Your task to perform on an android device: change the upload size in google photos Image 0: 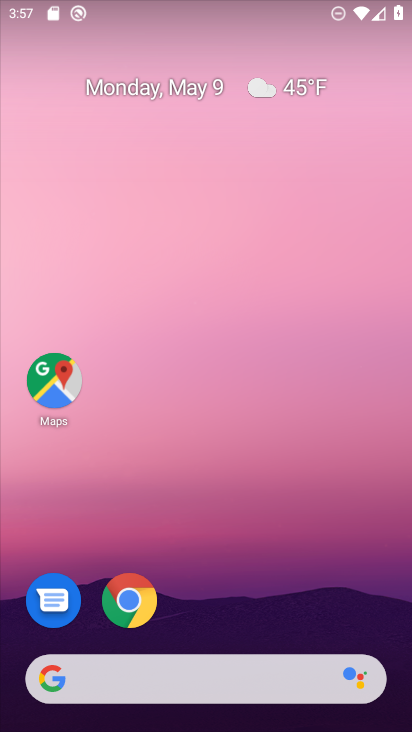
Step 0: drag from (266, 534) to (244, 22)
Your task to perform on an android device: change the upload size in google photos Image 1: 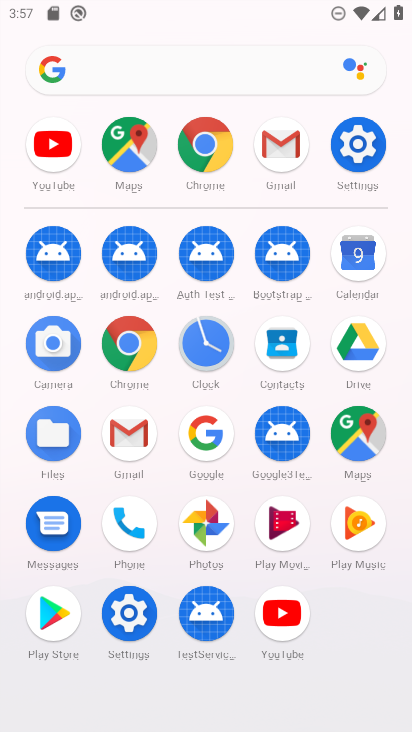
Step 1: drag from (7, 551) to (19, 230)
Your task to perform on an android device: change the upload size in google photos Image 2: 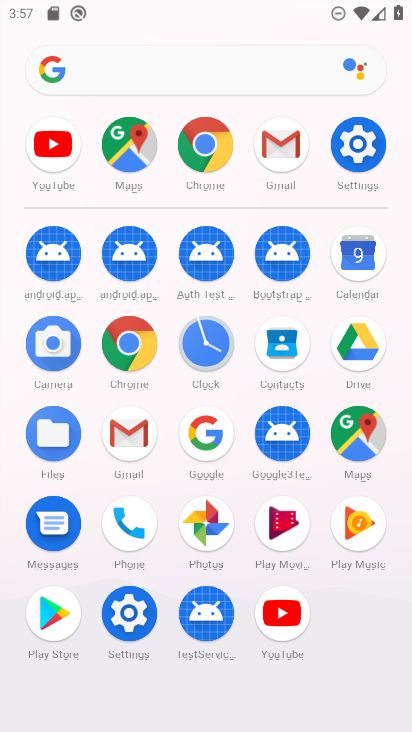
Step 2: click (203, 517)
Your task to perform on an android device: change the upload size in google photos Image 3: 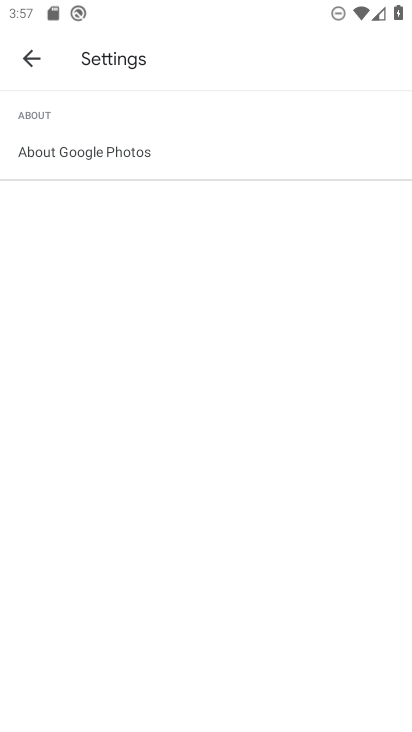
Step 3: click (24, 61)
Your task to perform on an android device: change the upload size in google photos Image 4: 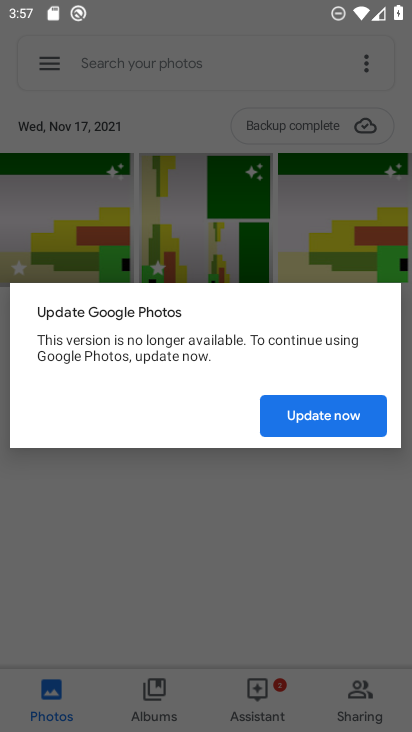
Step 4: click (318, 421)
Your task to perform on an android device: change the upload size in google photos Image 5: 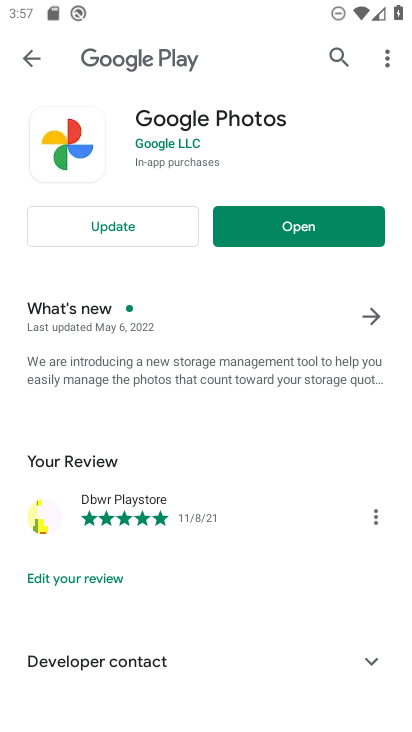
Step 5: click (168, 217)
Your task to perform on an android device: change the upload size in google photos Image 6: 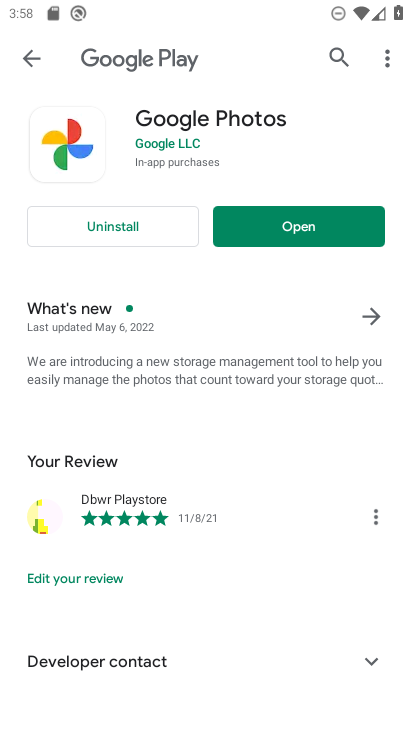
Step 6: click (337, 229)
Your task to perform on an android device: change the upload size in google photos Image 7: 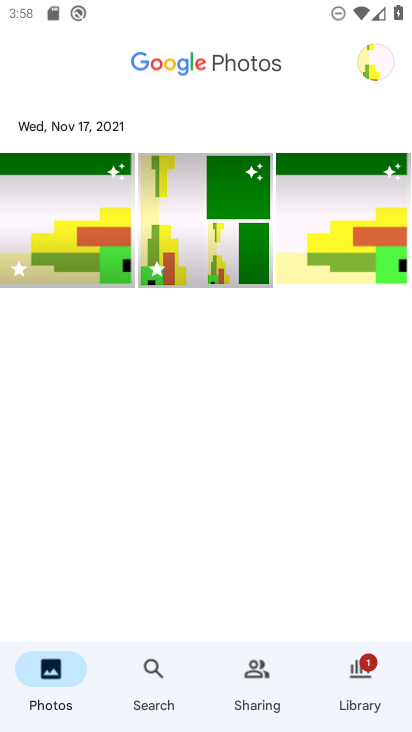
Step 7: click (373, 53)
Your task to perform on an android device: change the upload size in google photos Image 8: 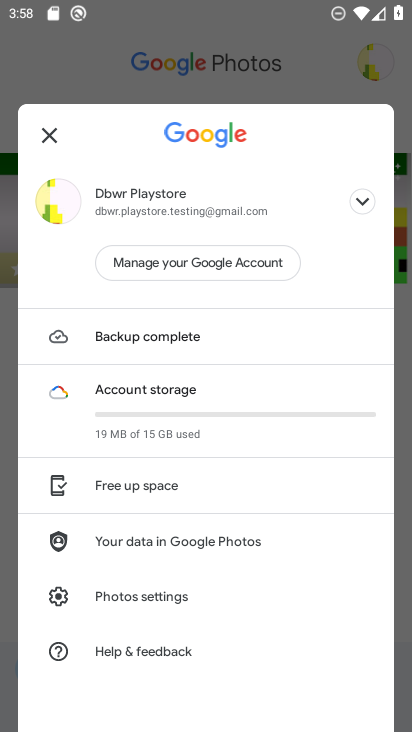
Step 8: click (172, 593)
Your task to perform on an android device: change the upload size in google photos Image 9: 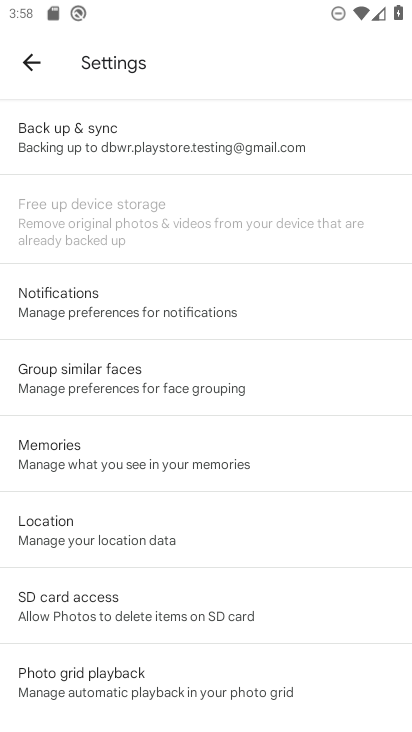
Step 9: click (177, 140)
Your task to perform on an android device: change the upload size in google photos Image 10: 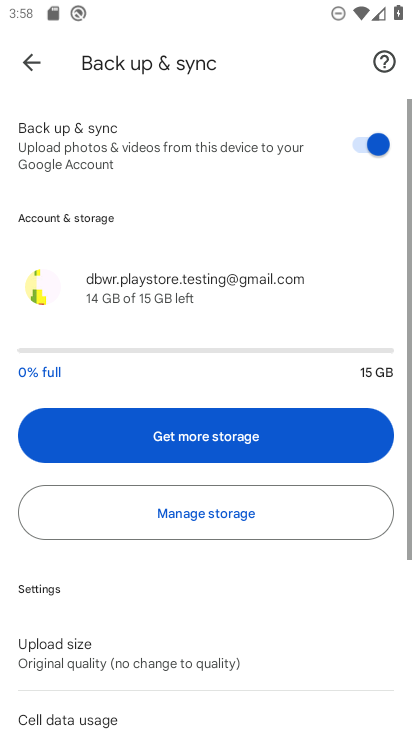
Step 10: drag from (195, 624) to (264, 174)
Your task to perform on an android device: change the upload size in google photos Image 11: 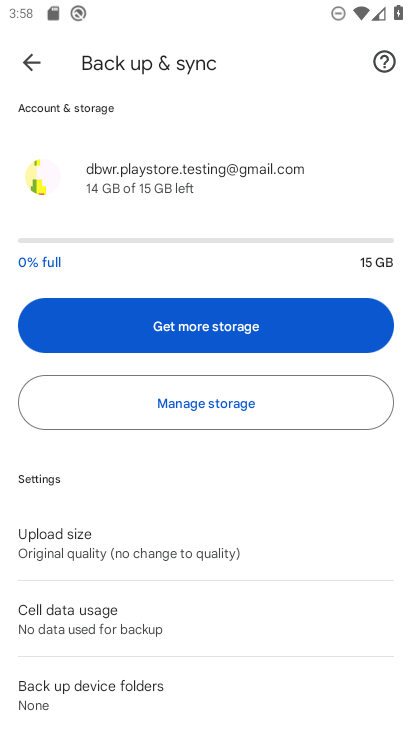
Step 11: click (87, 540)
Your task to perform on an android device: change the upload size in google photos Image 12: 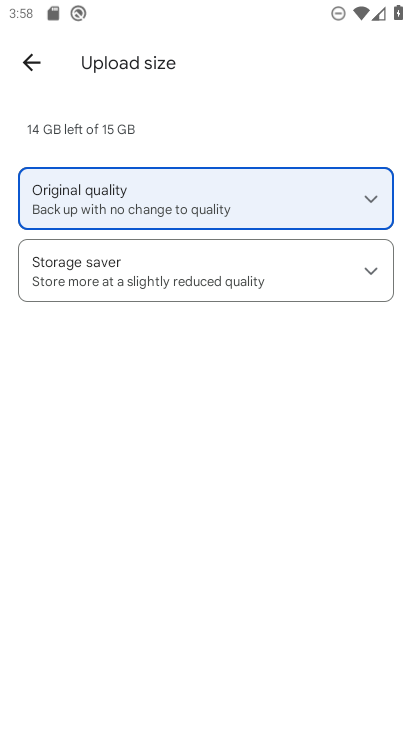
Step 12: click (193, 261)
Your task to perform on an android device: change the upload size in google photos Image 13: 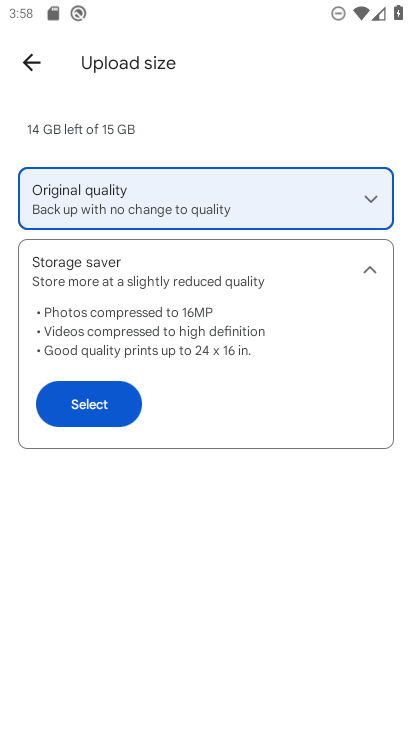
Step 13: click (196, 208)
Your task to perform on an android device: change the upload size in google photos Image 14: 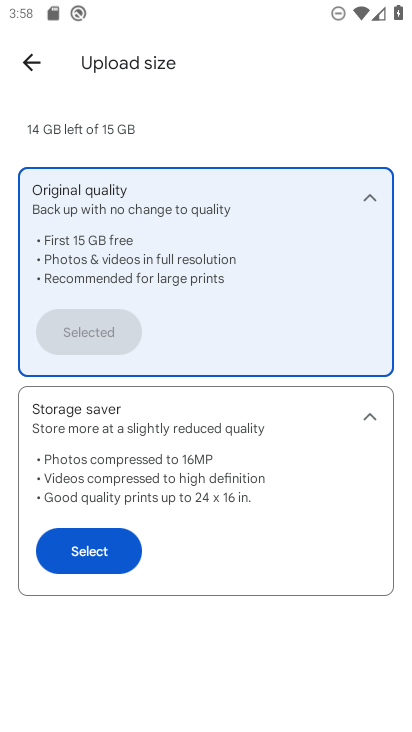
Step 14: click (68, 557)
Your task to perform on an android device: change the upload size in google photos Image 15: 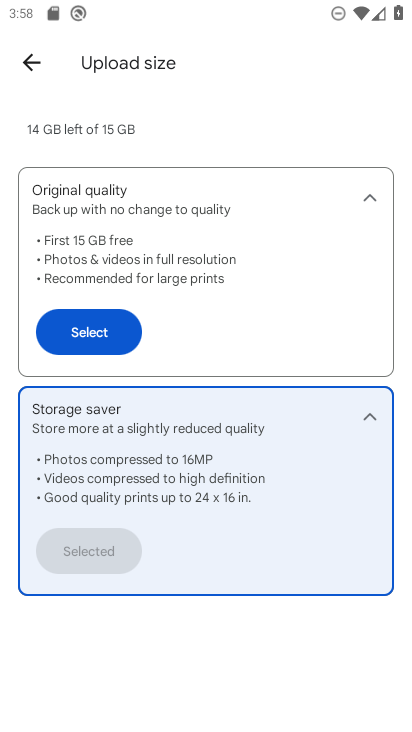
Step 15: click (73, 548)
Your task to perform on an android device: change the upload size in google photos Image 16: 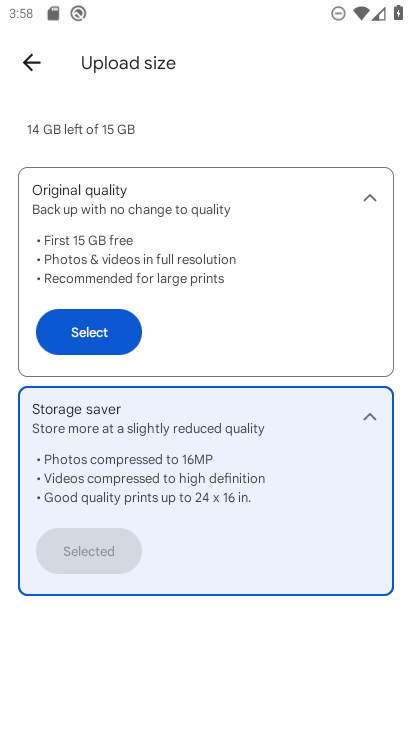
Step 16: task complete